Your task to perform on an android device: Open Maps and search for coffee Image 0: 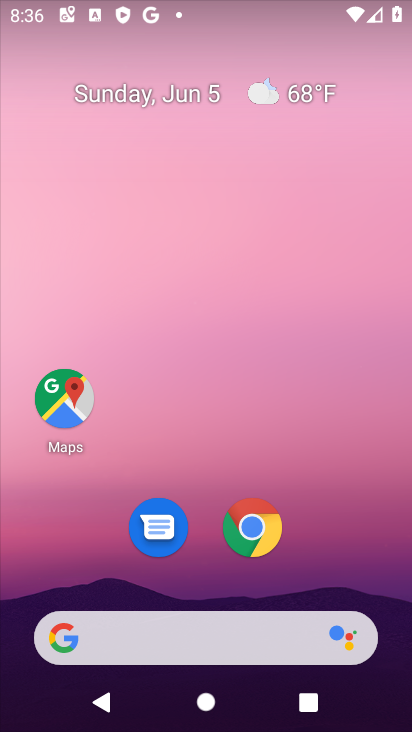
Step 0: click (65, 384)
Your task to perform on an android device: Open Maps and search for coffee Image 1: 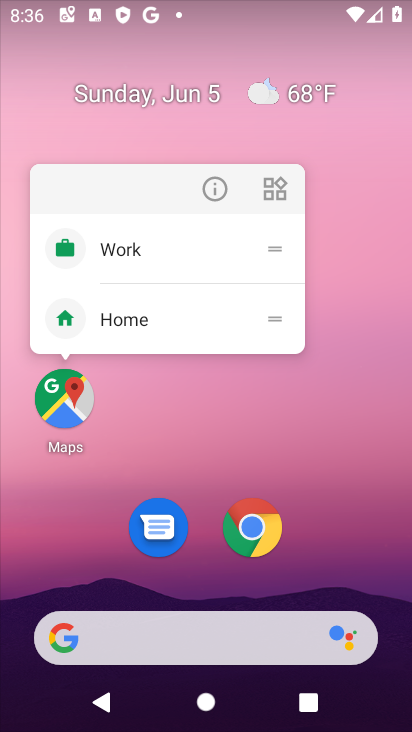
Step 1: click (155, 326)
Your task to perform on an android device: Open Maps and search for coffee Image 2: 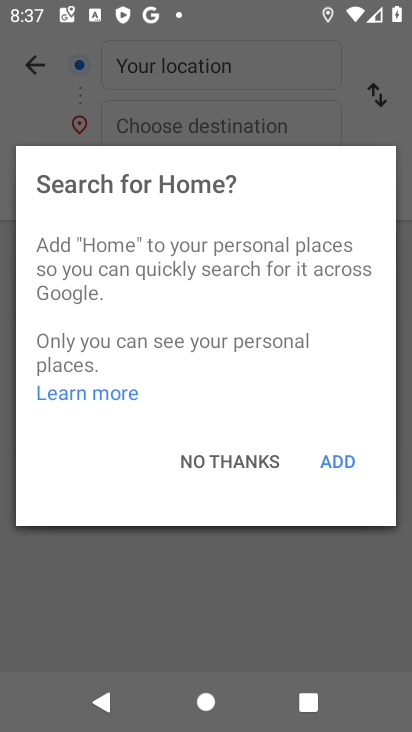
Step 2: click (236, 467)
Your task to perform on an android device: Open Maps and search for coffee Image 3: 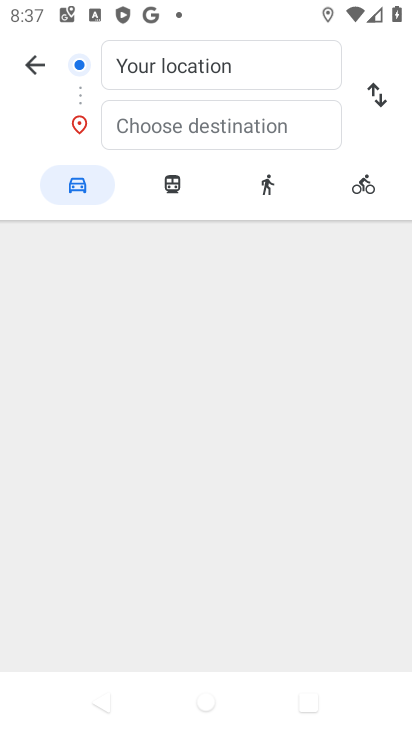
Step 3: click (35, 66)
Your task to perform on an android device: Open Maps and search for coffee Image 4: 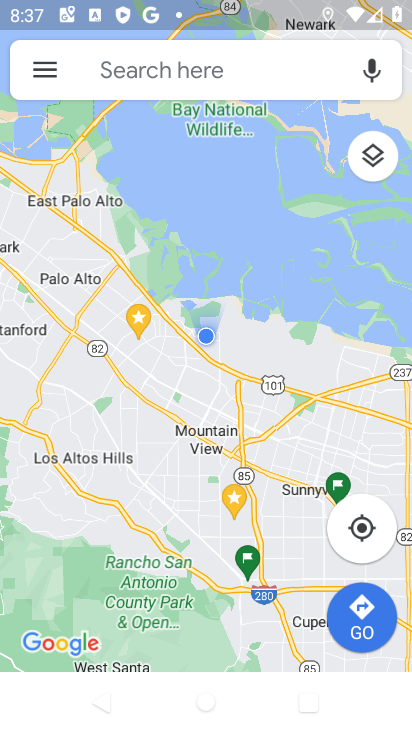
Step 4: click (149, 76)
Your task to perform on an android device: Open Maps and search for coffee Image 5: 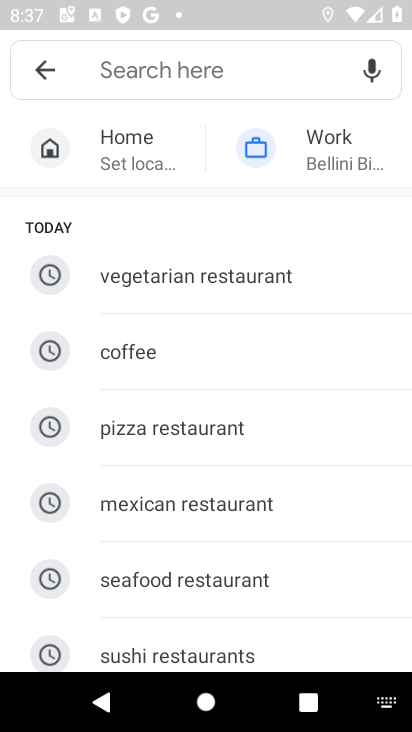
Step 5: click (226, 362)
Your task to perform on an android device: Open Maps and search for coffee Image 6: 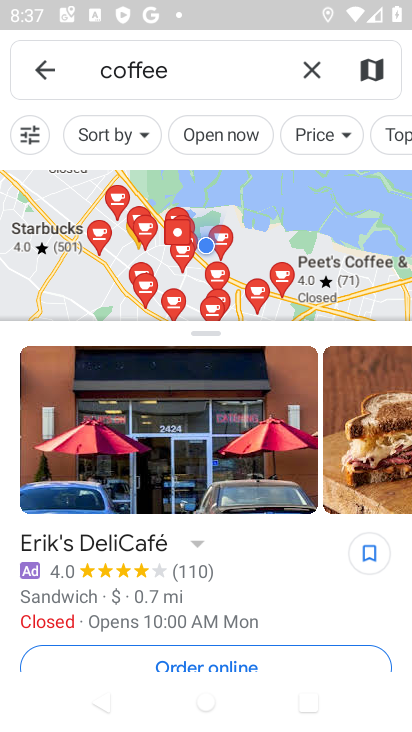
Step 6: task complete